Your task to perform on an android device: Search for seafood restaurants on Google Maps Image 0: 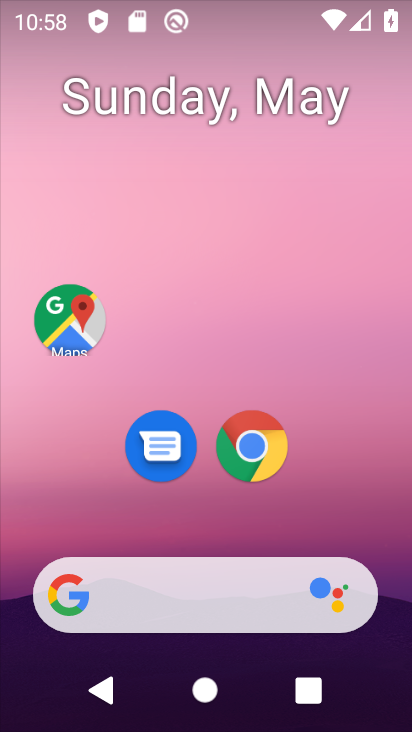
Step 0: click (92, 321)
Your task to perform on an android device: Search for seafood restaurants on Google Maps Image 1: 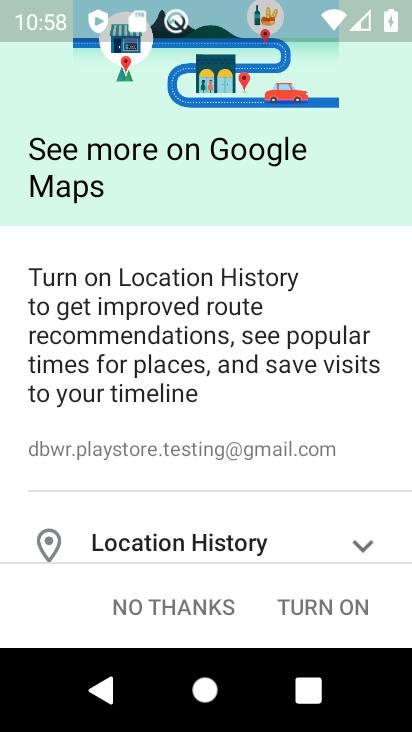
Step 1: click (322, 616)
Your task to perform on an android device: Search for seafood restaurants on Google Maps Image 2: 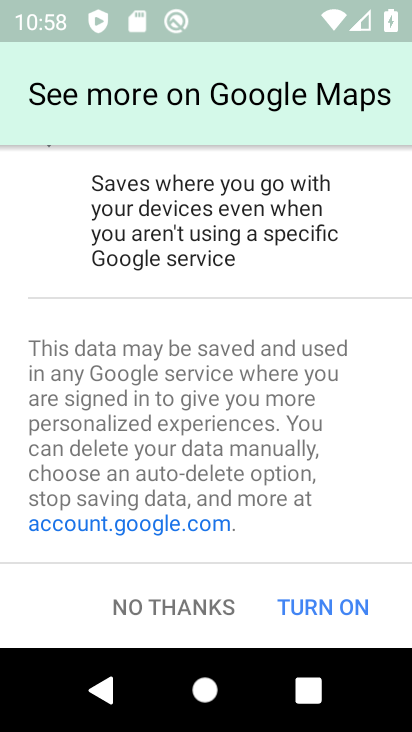
Step 2: click (322, 616)
Your task to perform on an android device: Search for seafood restaurants on Google Maps Image 3: 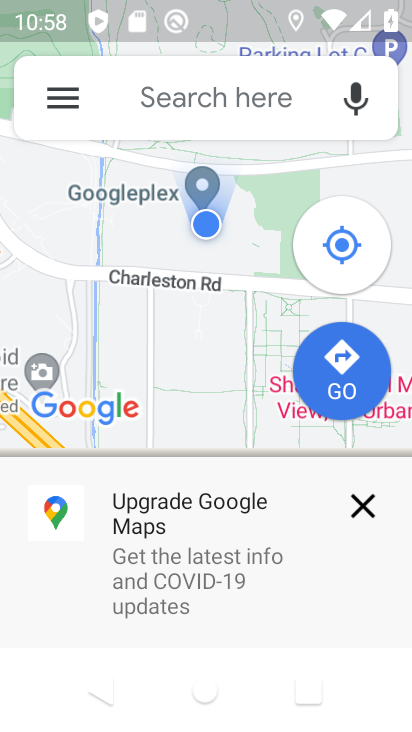
Step 3: click (207, 117)
Your task to perform on an android device: Search for seafood restaurants on Google Maps Image 4: 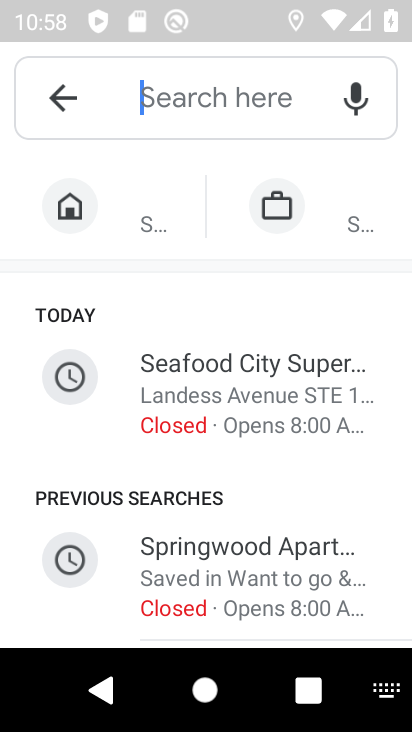
Step 4: type "seafood restaurants"
Your task to perform on an android device: Search for seafood restaurants on Google Maps Image 5: 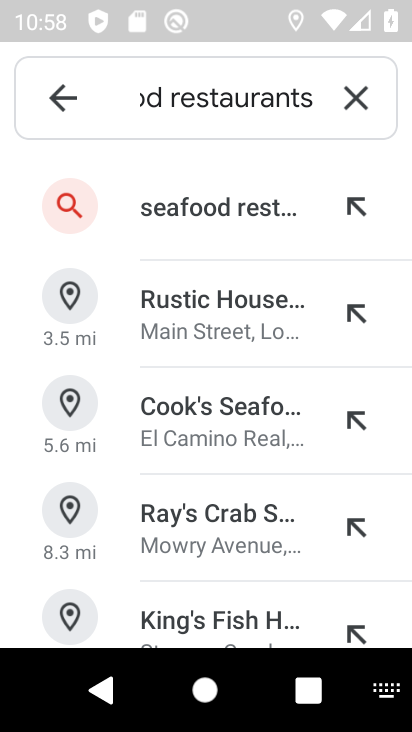
Step 5: click (231, 205)
Your task to perform on an android device: Search for seafood restaurants on Google Maps Image 6: 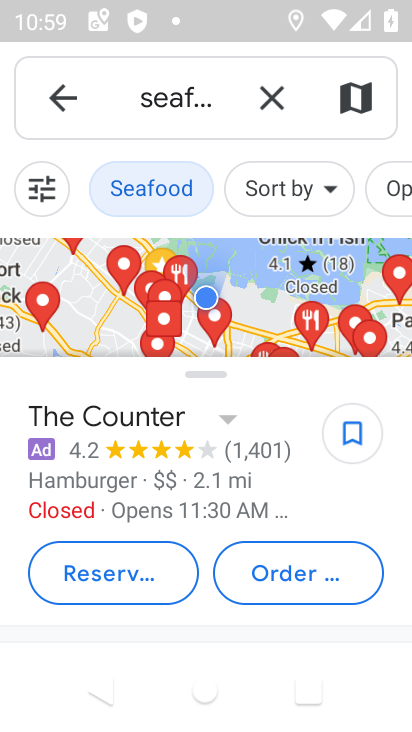
Step 6: task complete